Your task to perform on an android device: search for starred emails in the gmail app Image 0: 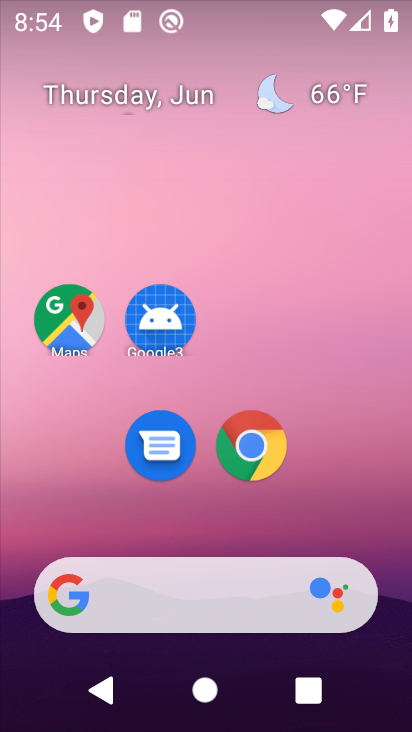
Step 0: drag from (293, 513) to (265, 26)
Your task to perform on an android device: search for starred emails in the gmail app Image 1: 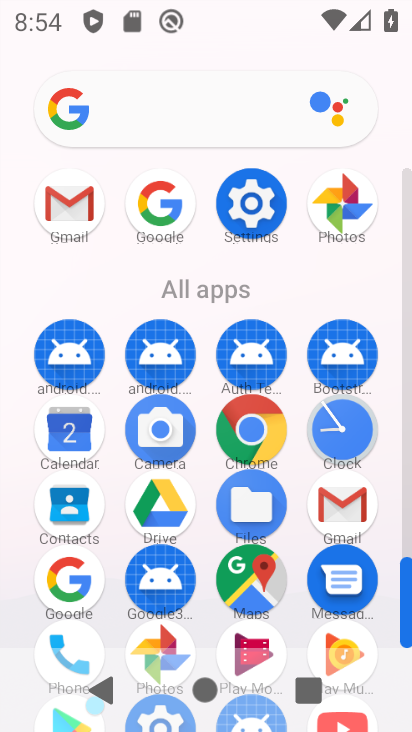
Step 1: click (83, 195)
Your task to perform on an android device: search for starred emails in the gmail app Image 2: 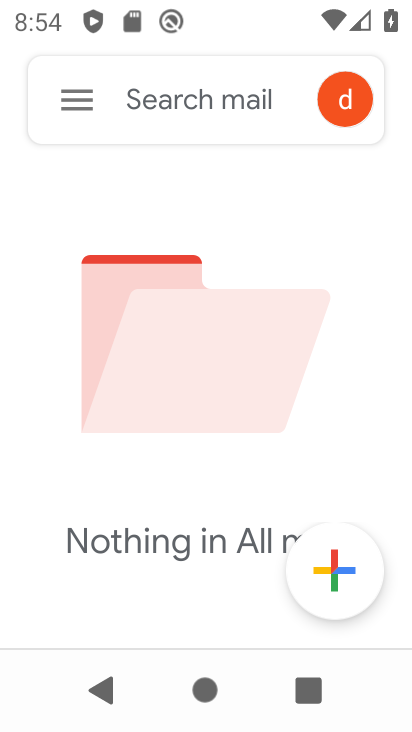
Step 2: click (78, 107)
Your task to perform on an android device: search for starred emails in the gmail app Image 3: 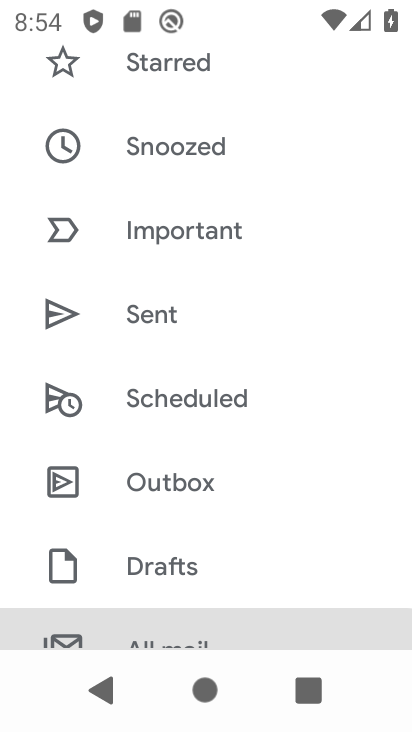
Step 3: click (196, 66)
Your task to perform on an android device: search for starred emails in the gmail app Image 4: 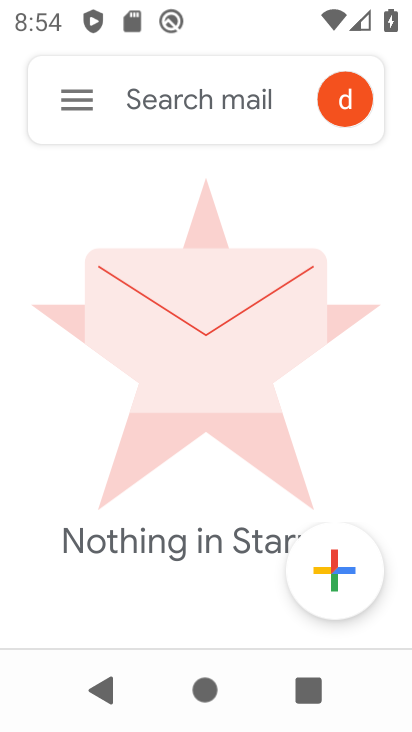
Step 4: task complete